Your task to perform on an android device: change alarm snooze length Image 0: 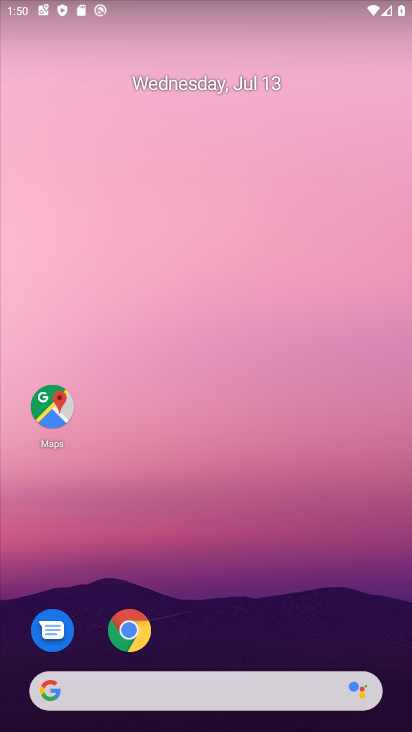
Step 0: drag from (355, 600) to (377, 97)
Your task to perform on an android device: change alarm snooze length Image 1: 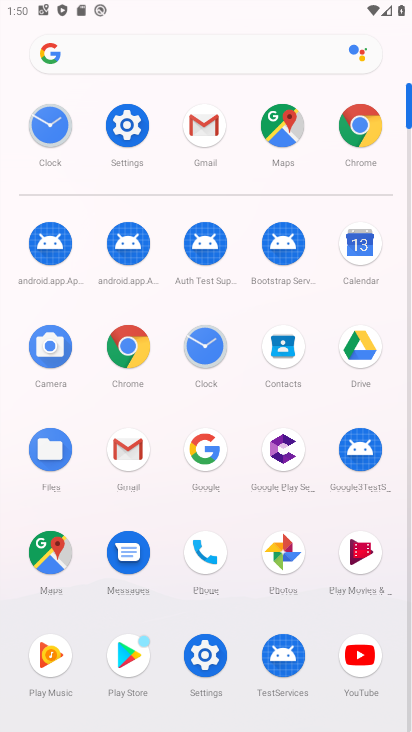
Step 1: click (196, 347)
Your task to perform on an android device: change alarm snooze length Image 2: 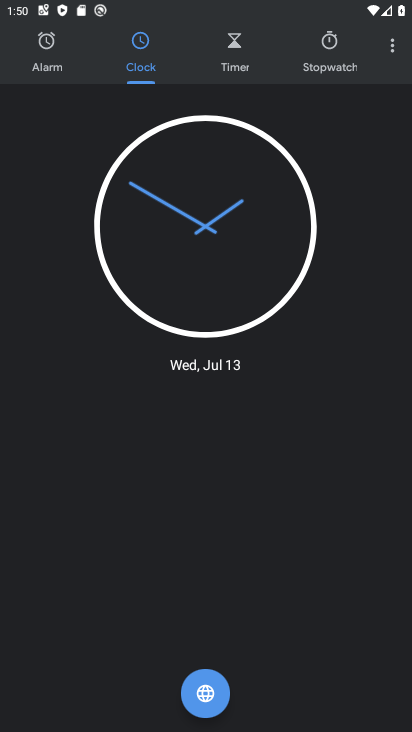
Step 2: click (392, 48)
Your task to perform on an android device: change alarm snooze length Image 3: 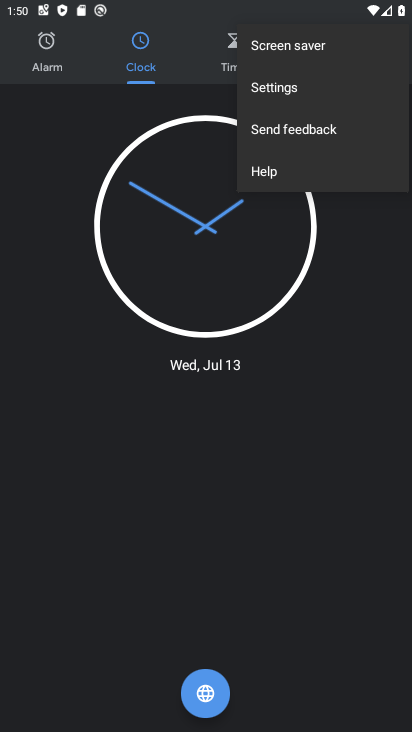
Step 3: click (317, 93)
Your task to perform on an android device: change alarm snooze length Image 4: 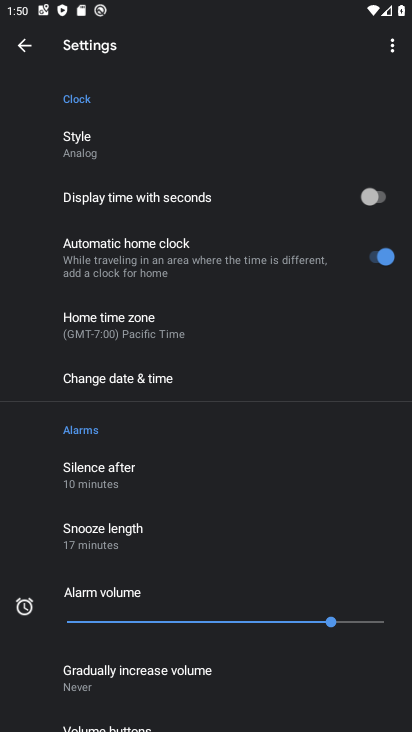
Step 4: drag from (329, 391) to (334, 286)
Your task to perform on an android device: change alarm snooze length Image 5: 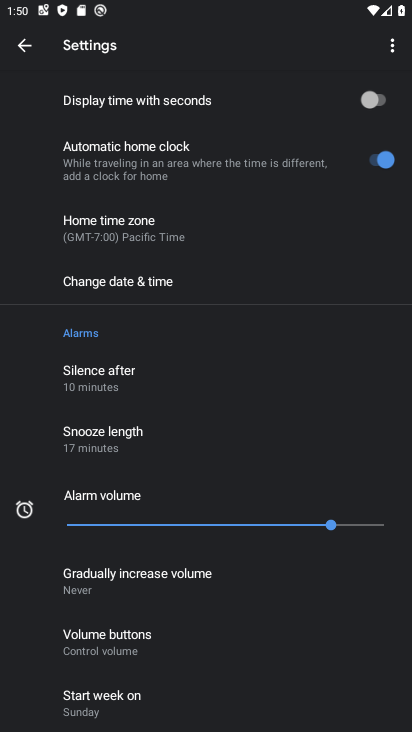
Step 5: drag from (302, 391) to (302, 261)
Your task to perform on an android device: change alarm snooze length Image 6: 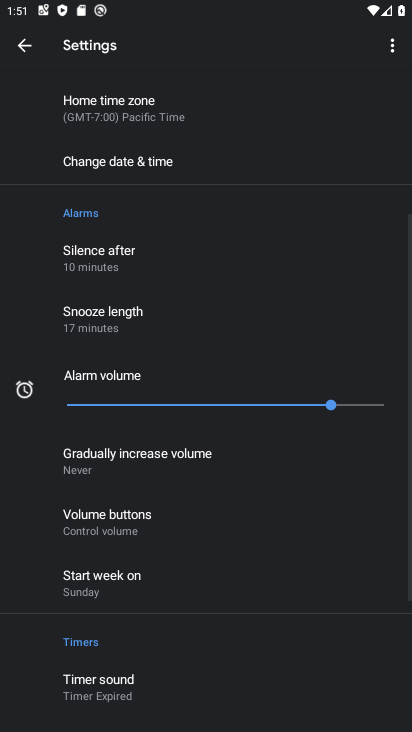
Step 6: drag from (299, 455) to (309, 312)
Your task to perform on an android device: change alarm snooze length Image 7: 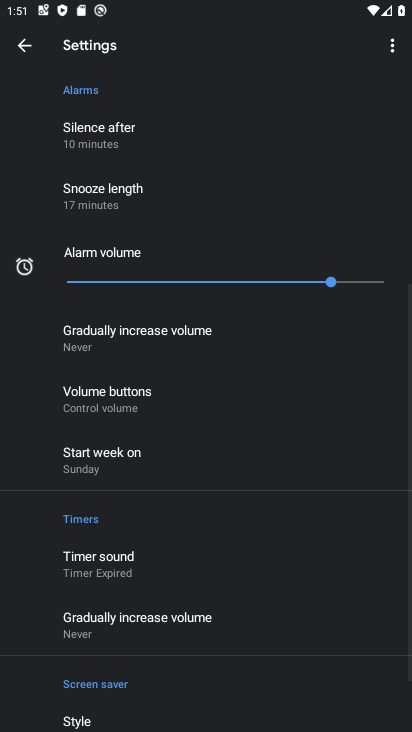
Step 7: drag from (314, 474) to (308, 284)
Your task to perform on an android device: change alarm snooze length Image 8: 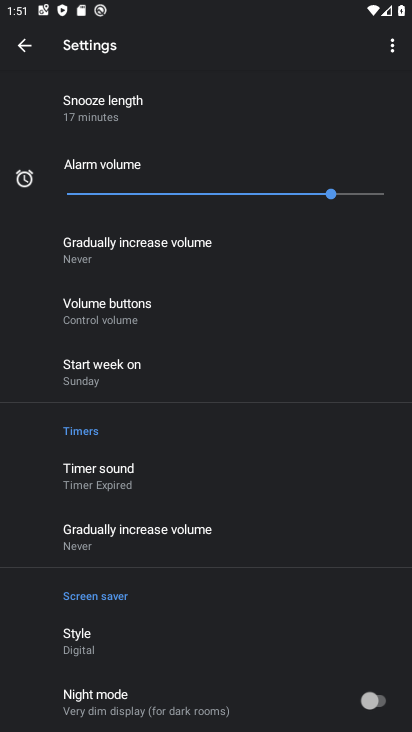
Step 8: drag from (308, 464) to (307, 340)
Your task to perform on an android device: change alarm snooze length Image 9: 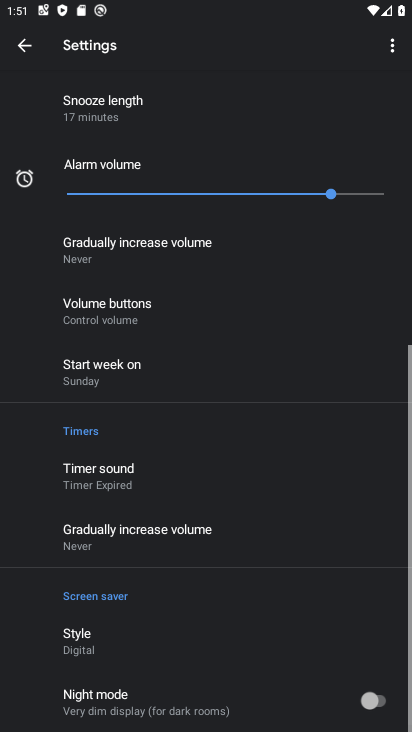
Step 9: drag from (308, 291) to (310, 414)
Your task to perform on an android device: change alarm snooze length Image 10: 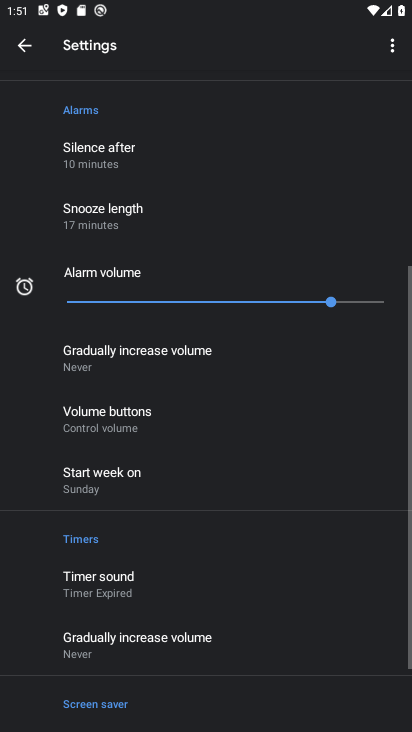
Step 10: drag from (298, 295) to (299, 422)
Your task to perform on an android device: change alarm snooze length Image 11: 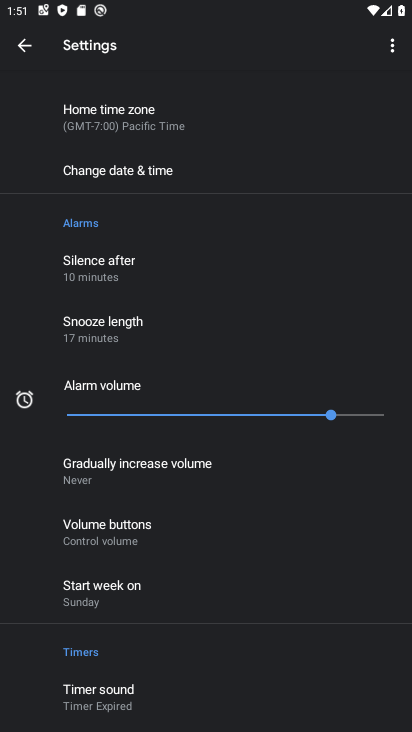
Step 11: drag from (299, 302) to (301, 414)
Your task to perform on an android device: change alarm snooze length Image 12: 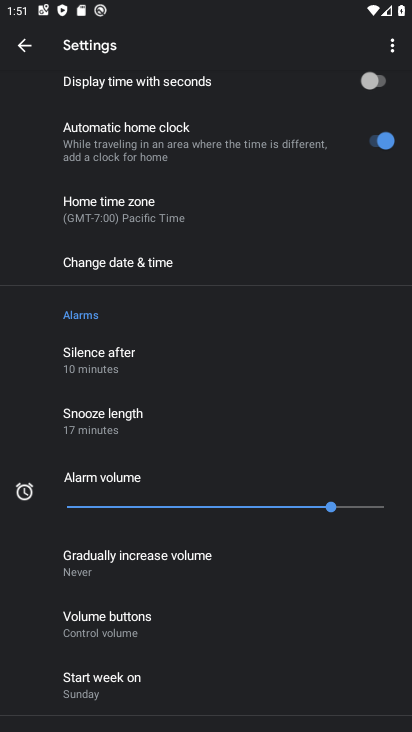
Step 12: drag from (286, 325) to (291, 448)
Your task to perform on an android device: change alarm snooze length Image 13: 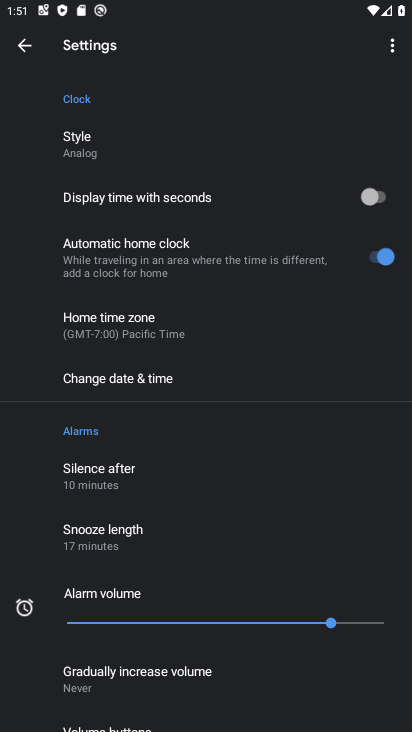
Step 13: click (159, 539)
Your task to perform on an android device: change alarm snooze length Image 14: 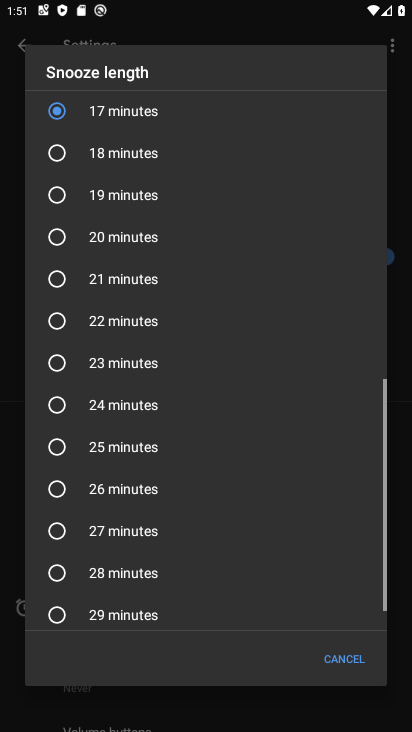
Step 14: click (137, 496)
Your task to perform on an android device: change alarm snooze length Image 15: 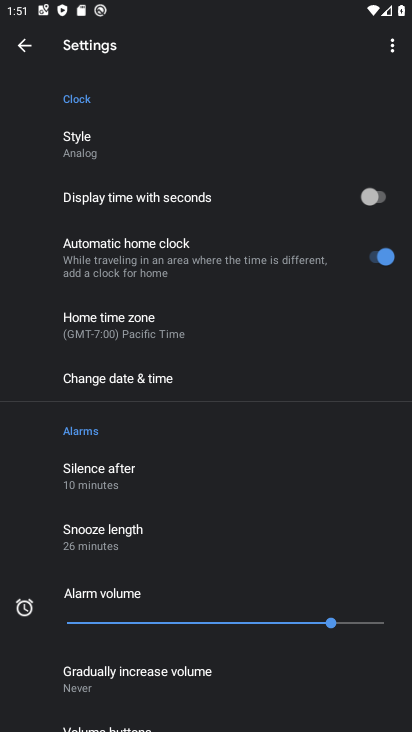
Step 15: task complete